Your task to perform on an android device: Open Yahoo.com Image 0: 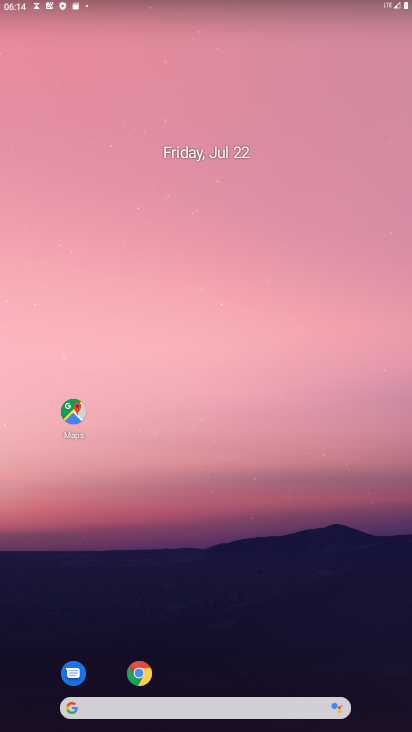
Step 0: click (65, 712)
Your task to perform on an android device: Open Yahoo.com Image 1: 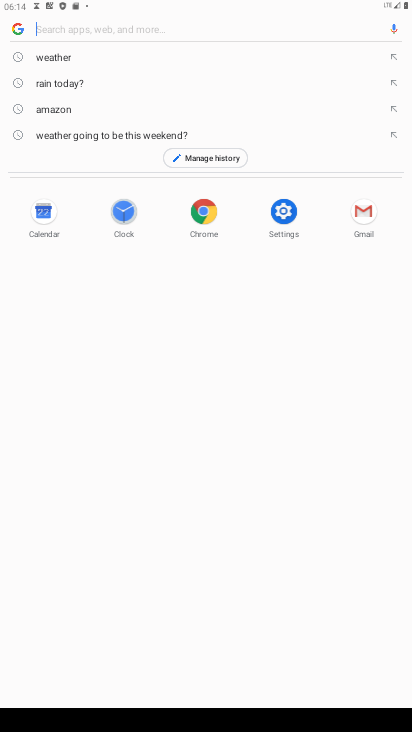
Step 1: type "Yahoo.com"
Your task to perform on an android device: Open Yahoo.com Image 2: 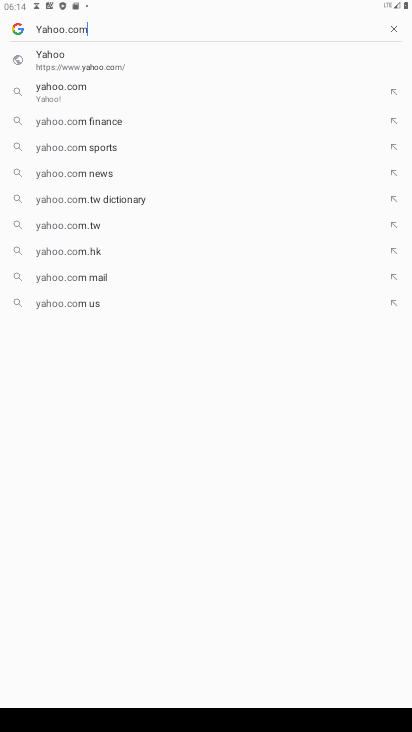
Step 2: press enter
Your task to perform on an android device: Open Yahoo.com Image 3: 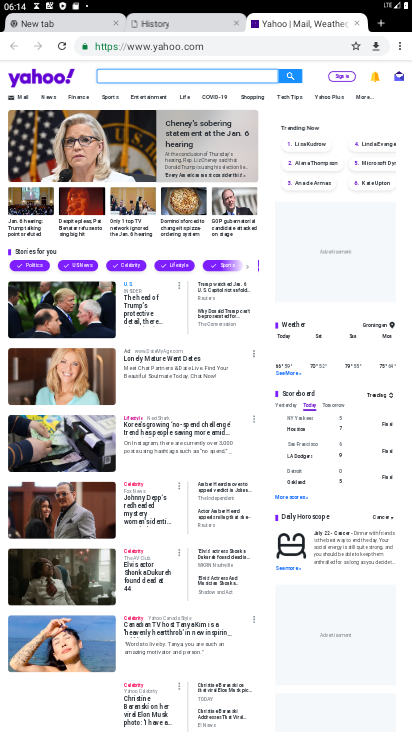
Step 3: task complete